Your task to perform on an android device: turn notification dots off Image 0: 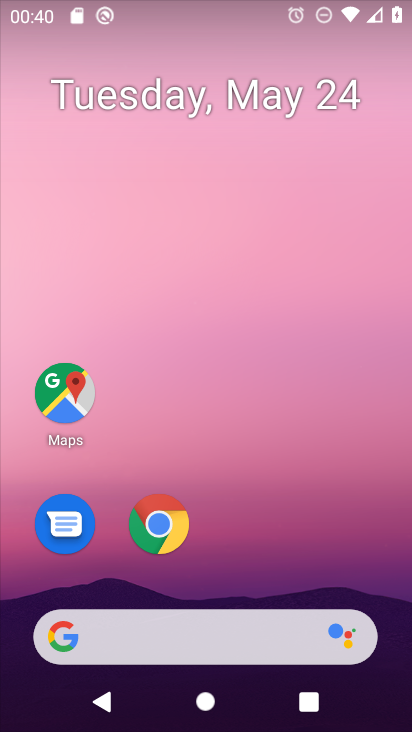
Step 0: drag from (219, 593) to (265, 126)
Your task to perform on an android device: turn notification dots off Image 1: 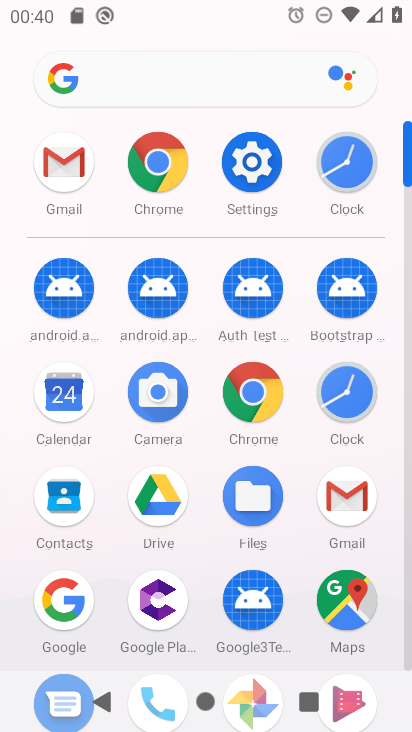
Step 1: click (264, 156)
Your task to perform on an android device: turn notification dots off Image 2: 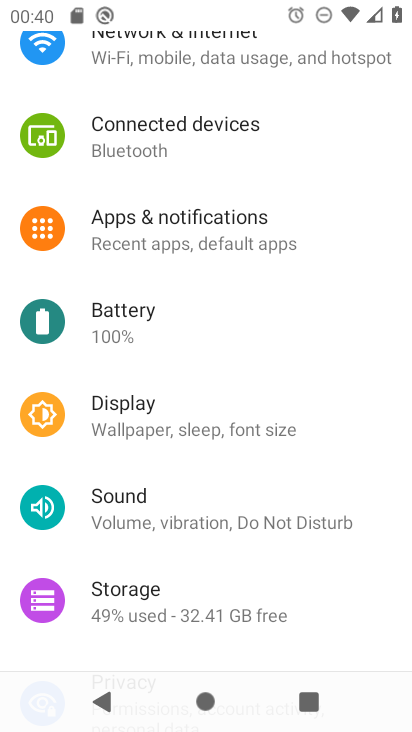
Step 2: click (248, 227)
Your task to perform on an android device: turn notification dots off Image 3: 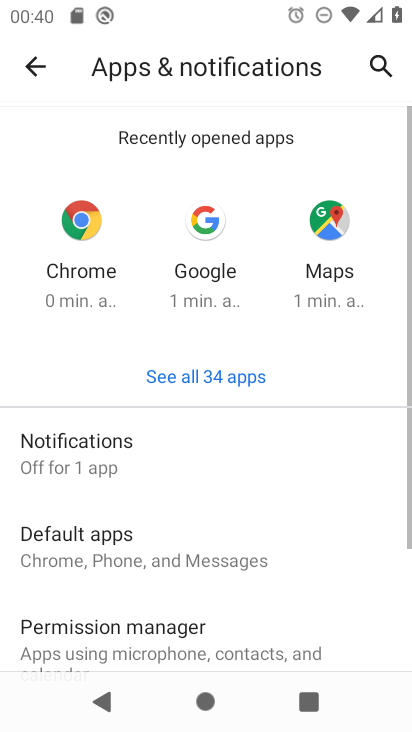
Step 3: click (43, 462)
Your task to perform on an android device: turn notification dots off Image 4: 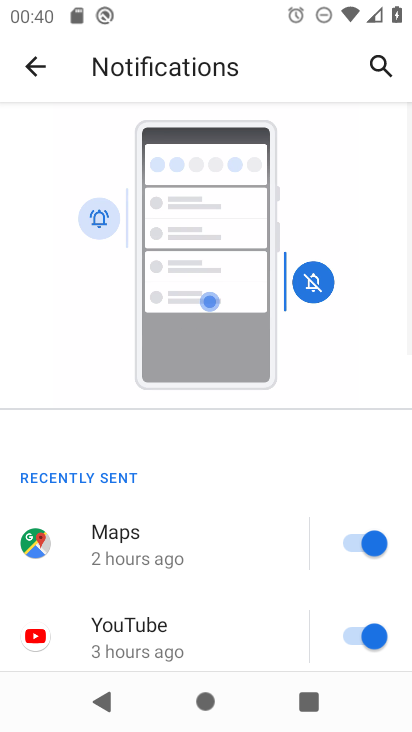
Step 4: drag from (211, 568) to (226, 192)
Your task to perform on an android device: turn notification dots off Image 5: 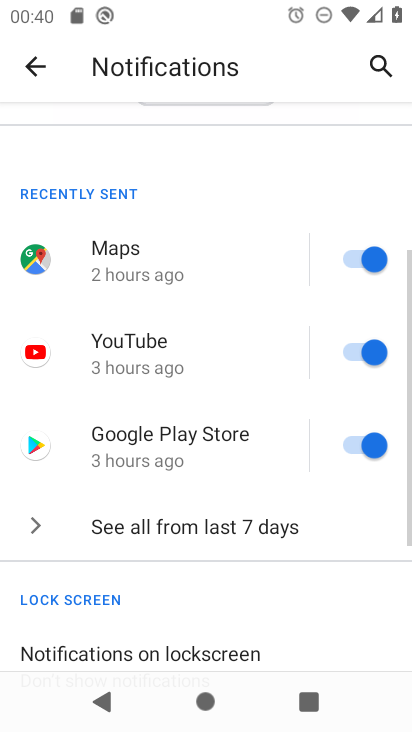
Step 5: drag from (238, 616) to (278, 256)
Your task to perform on an android device: turn notification dots off Image 6: 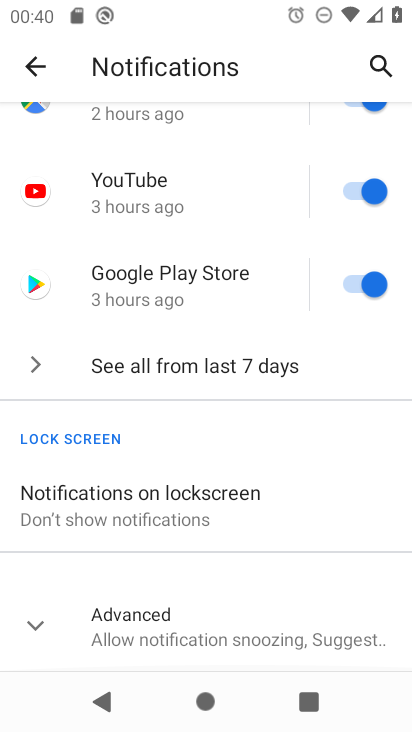
Step 6: click (255, 592)
Your task to perform on an android device: turn notification dots off Image 7: 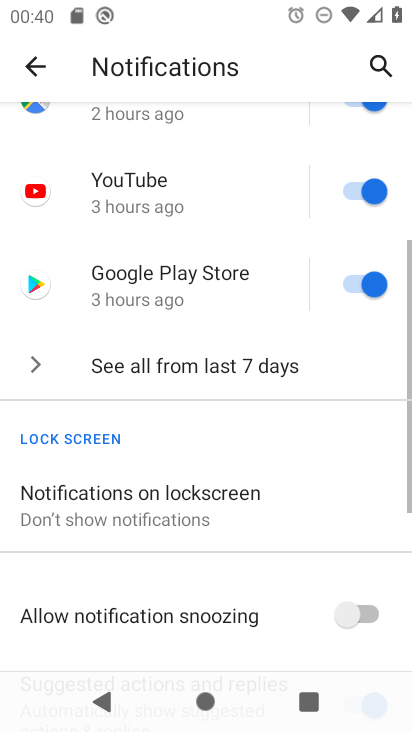
Step 7: task complete